Your task to perform on an android device: Go to eBay Image 0: 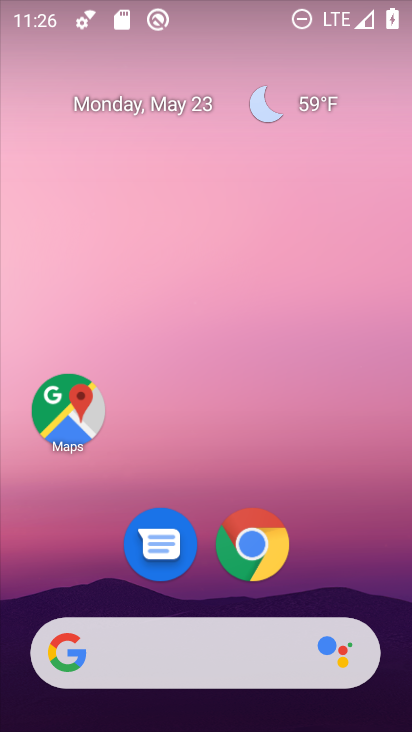
Step 0: click (252, 544)
Your task to perform on an android device: Go to eBay Image 1: 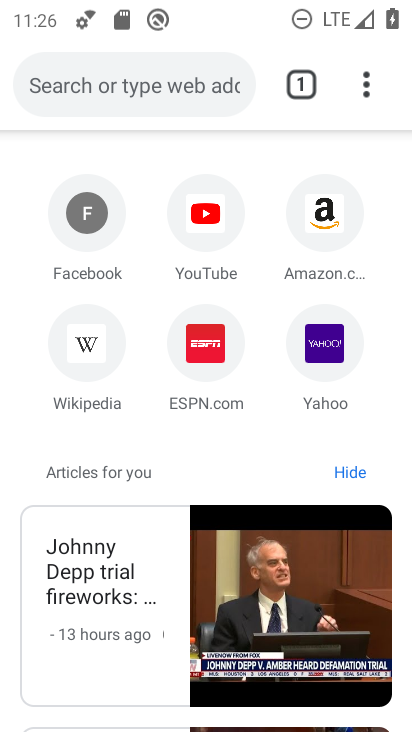
Step 1: click (106, 84)
Your task to perform on an android device: Go to eBay Image 2: 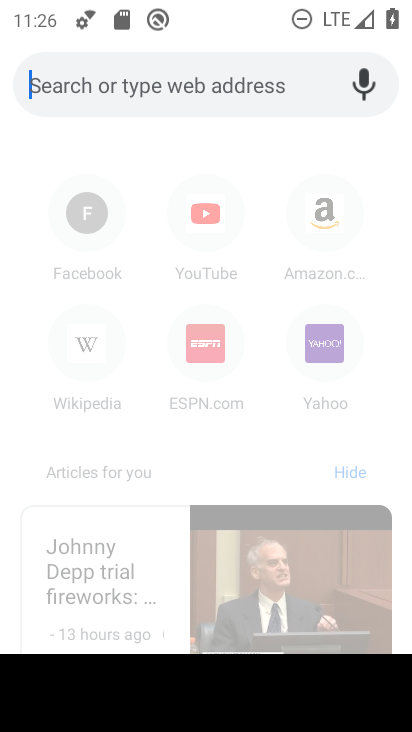
Step 2: type "ebay"
Your task to perform on an android device: Go to eBay Image 3: 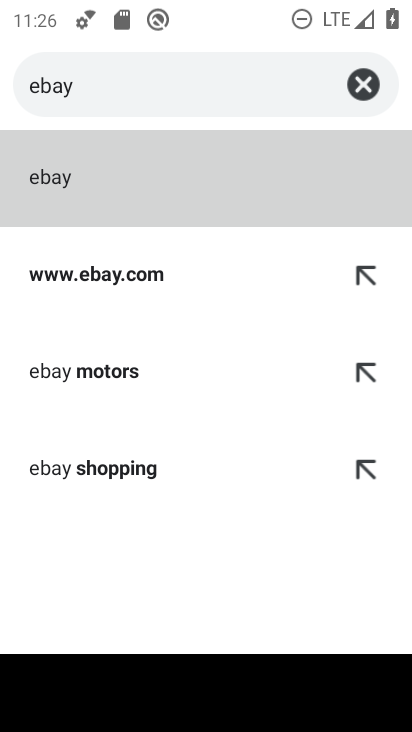
Step 3: click (50, 176)
Your task to perform on an android device: Go to eBay Image 4: 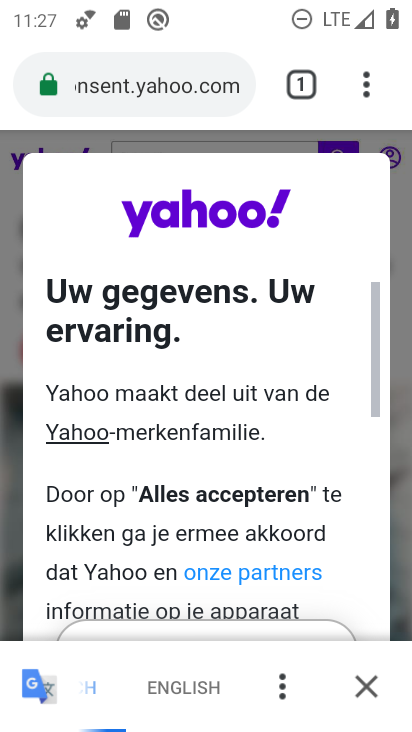
Step 4: drag from (282, 545) to (257, 88)
Your task to perform on an android device: Go to eBay Image 5: 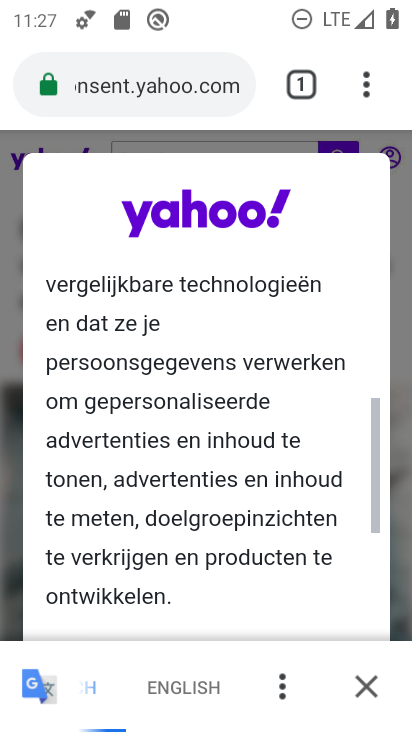
Step 5: drag from (266, 564) to (265, 147)
Your task to perform on an android device: Go to eBay Image 6: 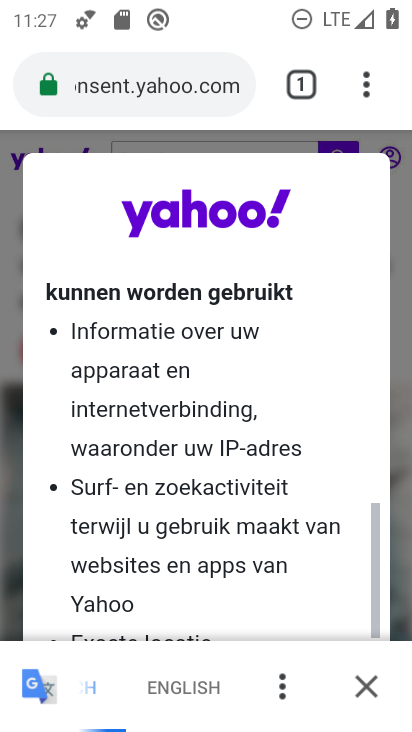
Step 6: drag from (262, 553) to (262, 132)
Your task to perform on an android device: Go to eBay Image 7: 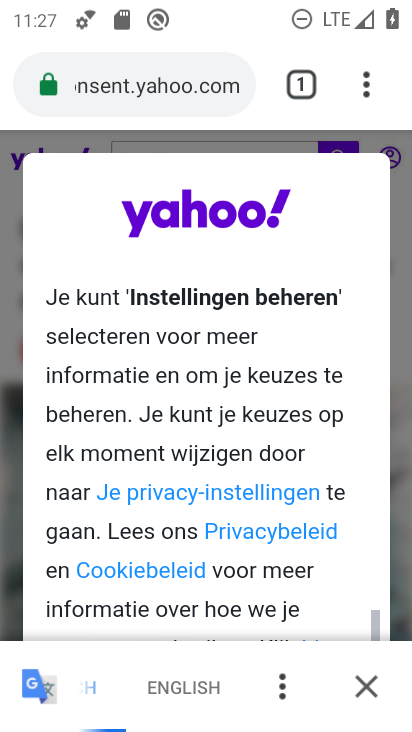
Step 7: drag from (277, 582) to (283, 82)
Your task to perform on an android device: Go to eBay Image 8: 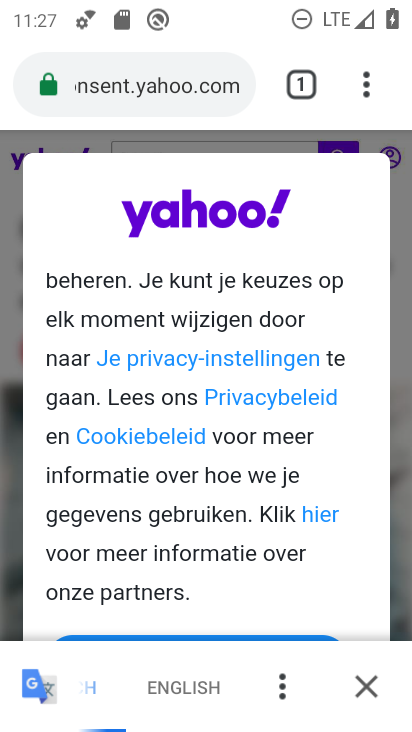
Step 8: click (366, 682)
Your task to perform on an android device: Go to eBay Image 9: 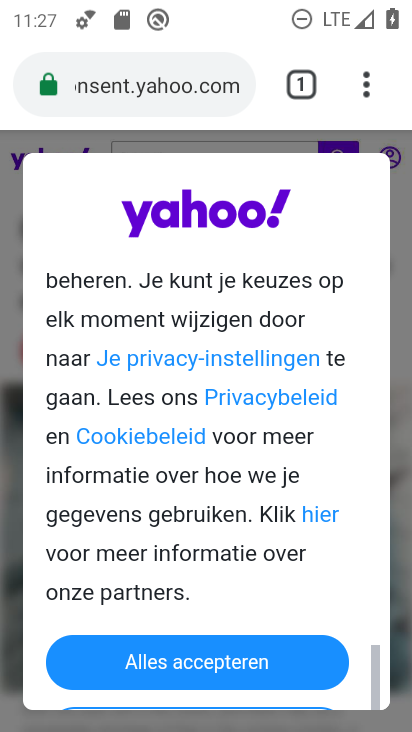
Step 9: click (198, 656)
Your task to perform on an android device: Go to eBay Image 10: 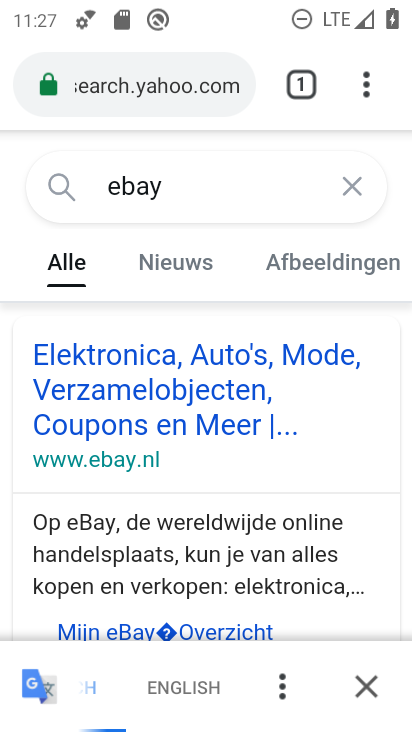
Step 10: click (83, 448)
Your task to perform on an android device: Go to eBay Image 11: 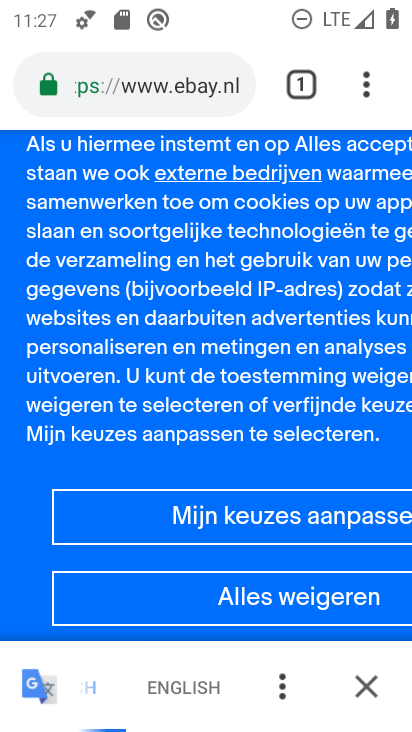
Step 11: task complete